Your task to perform on an android device: Do I have any events today? Image 0: 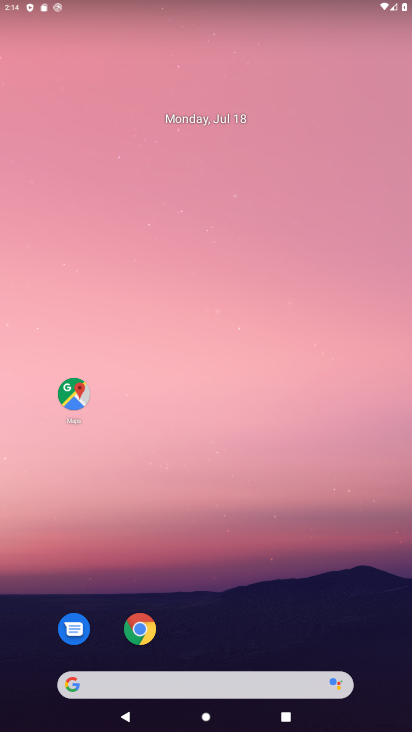
Step 0: drag from (198, 636) to (207, 337)
Your task to perform on an android device: Do I have any events today? Image 1: 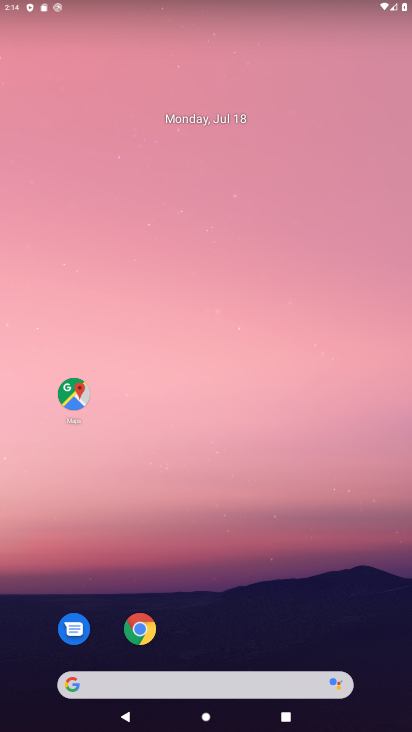
Step 1: drag from (215, 605) to (239, 173)
Your task to perform on an android device: Do I have any events today? Image 2: 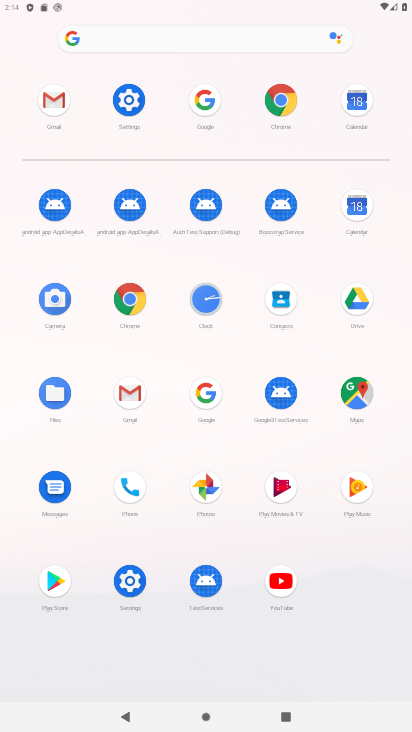
Step 2: click (349, 214)
Your task to perform on an android device: Do I have any events today? Image 3: 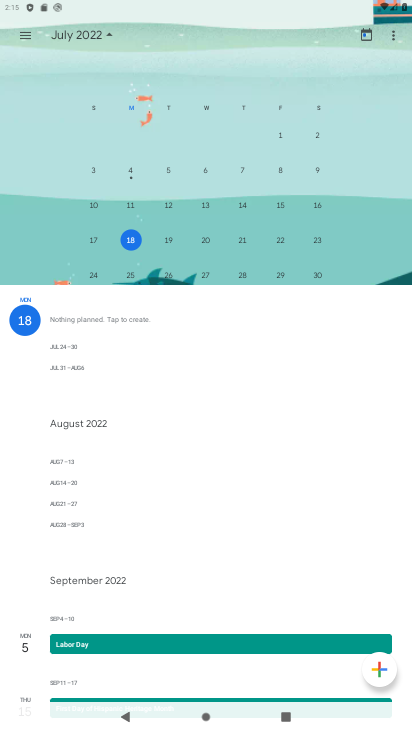
Step 3: task complete